Your task to perform on an android device: turn pop-ups off in chrome Image 0: 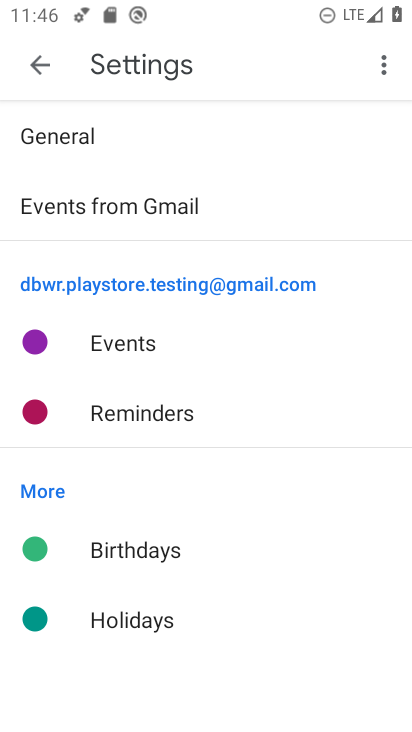
Step 0: click (174, 577)
Your task to perform on an android device: turn pop-ups off in chrome Image 1: 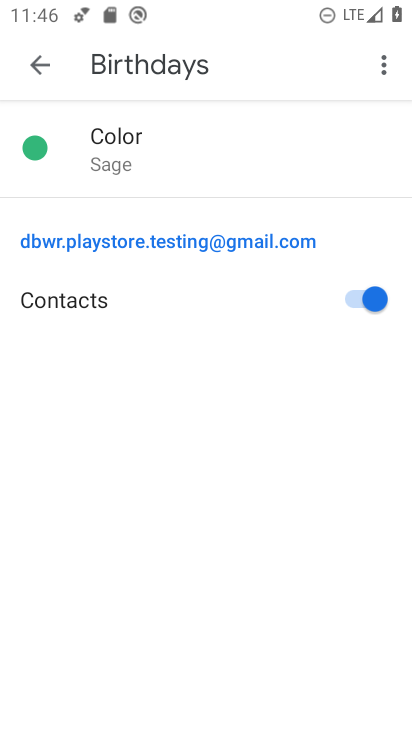
Step 1: press home button
Your task to perform on an android device: turn pop-ups off in chrome Image 2: 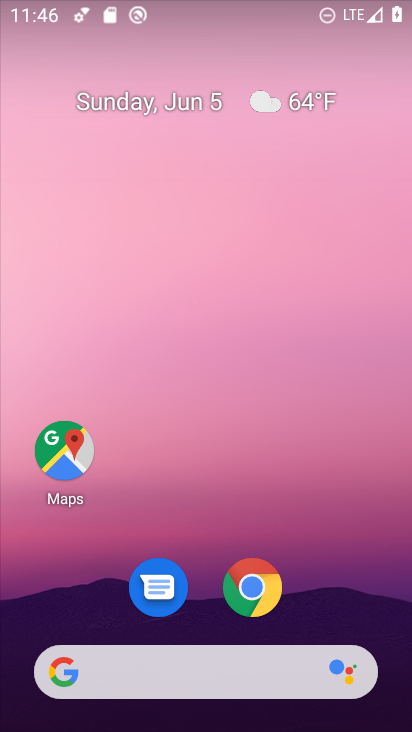
Step 2: click (247, 594)
Your task to perform on an android device: turn pop-ups off in chrome Image 3: 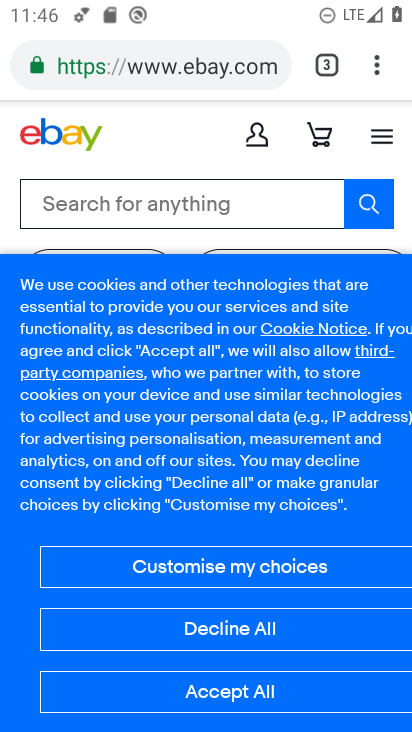
Step 3: click (387, 66)
Your task to perform on an android device: turn pop-ups off in chrome Image 4: 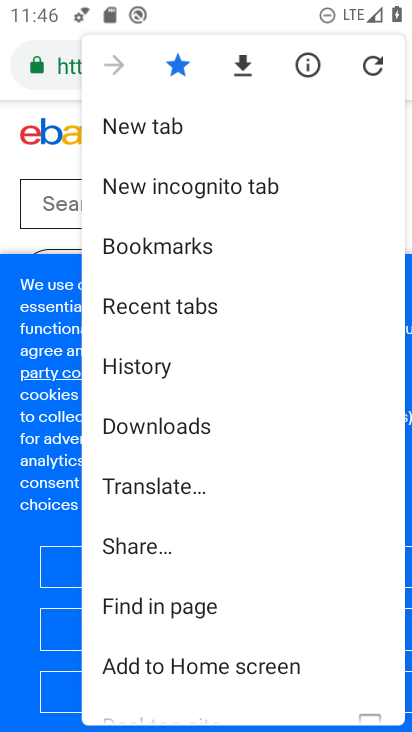
Step 4: drag from (140, 613) to (172, 133)
Your task to perform on an android device: turn pop-ups off in chrome Image 5: 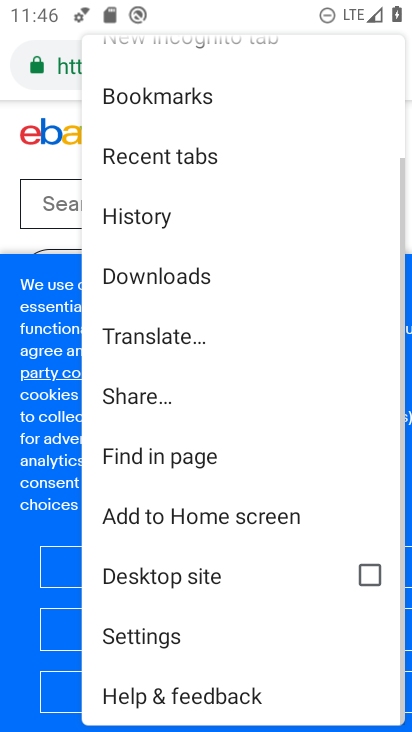
Step 5: click (105, 621)
Your task to perform on an android device: turn pop-ups off in chrome Image 6: 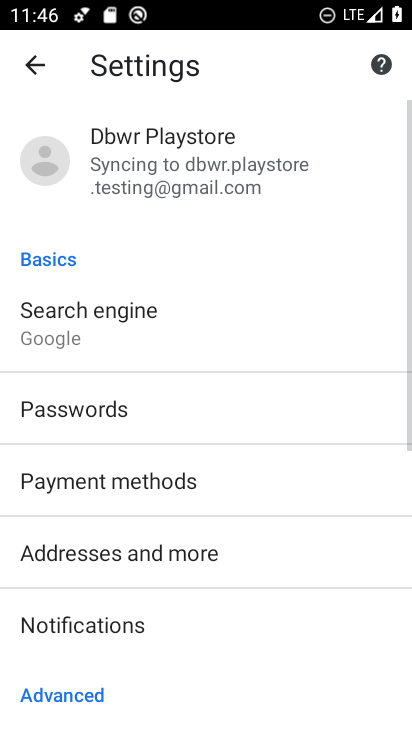
Step 6: drag from (105, 621) to (155, 71)
Your task to perform on an android device: turn pop-ups off in chrome Image 7: 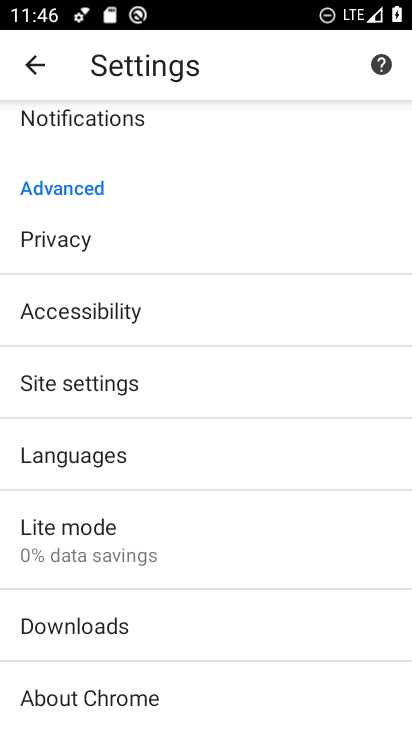
Step 7: drag from (124, 588) to (157, 242)
Your task to perform on an android device: turn pop-ups off in chrome Image 8: 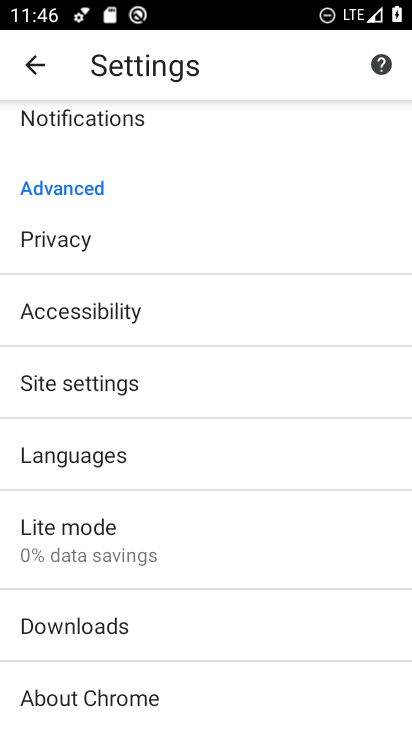
Step 8: click (85, 400)
Your task to perform on an android device: turn pop-ups off in chrome Image 9: 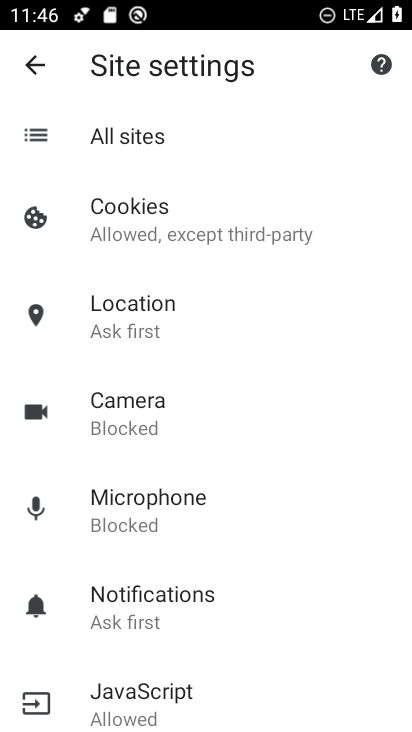
Step 9: drag from (72, 665) to (206, 79)
Your task to perform on an android device: turn pop-ups off in chrome Image 10: 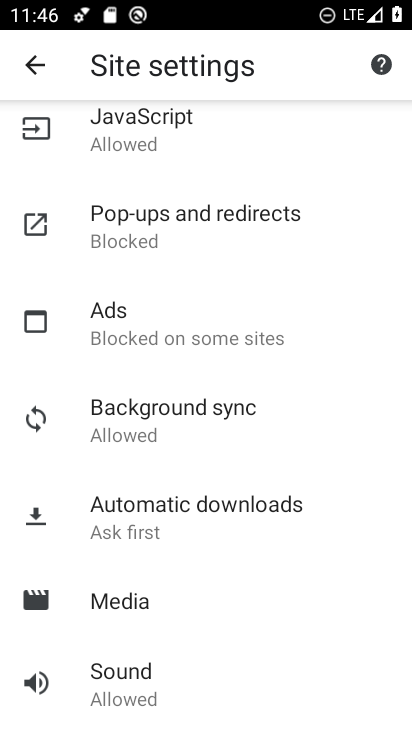
Step 10: click (136, 244)
Your task to perform on an android device: turn pop-ups off in chrome Image 11: 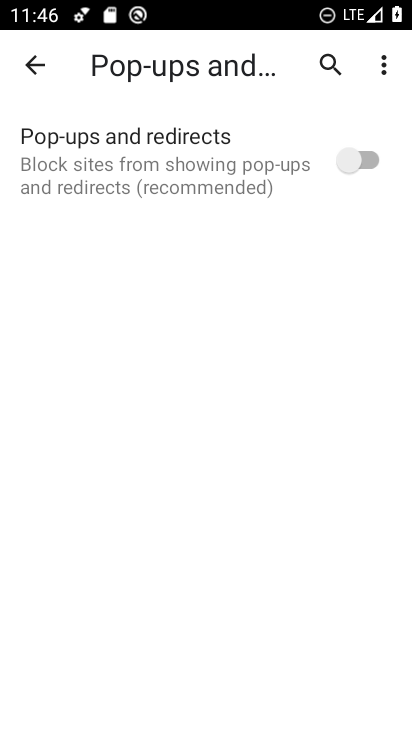
Step 11: task complete